Your task to perform on an android device: toggle location history Image 0: 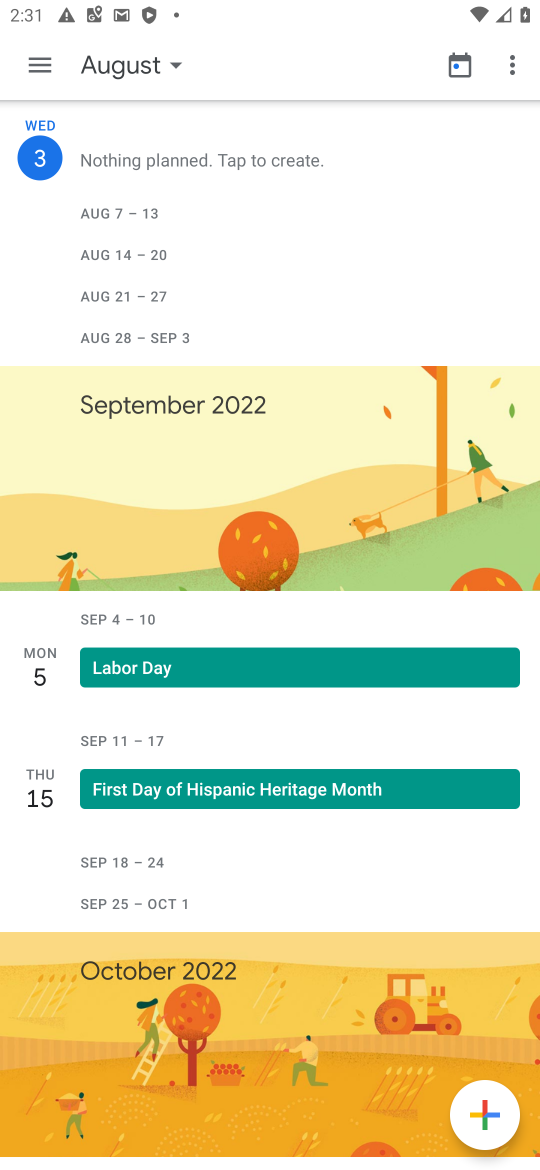
Step 0: press home button
Your task to perform on an android device: toggle location history Image 1: 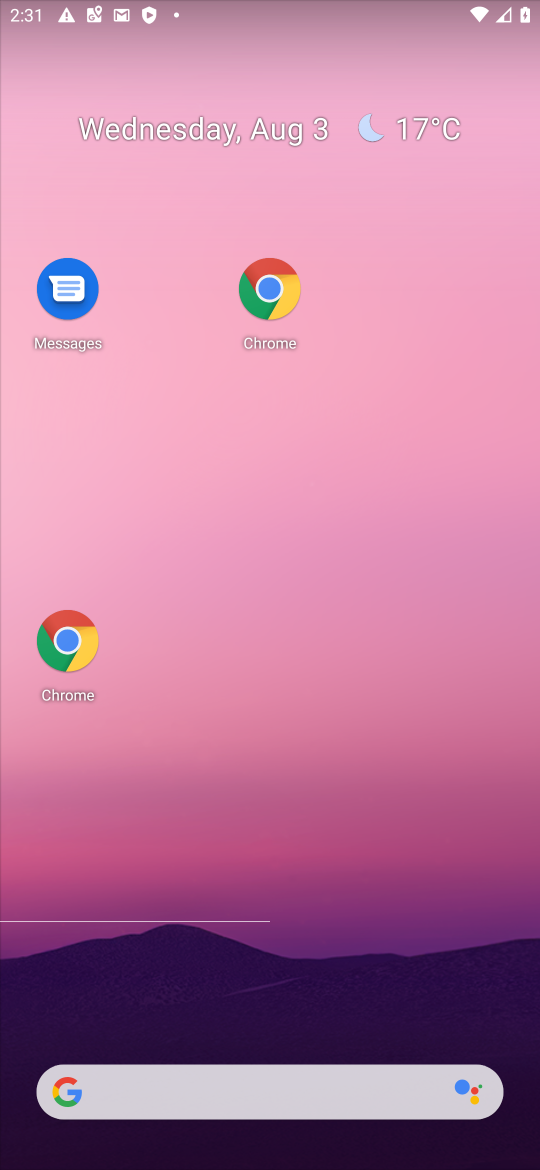
Step 1: drag from (273, 1032) to (344, 92)
Your task to perform on an android device: toggle location history Image 2: 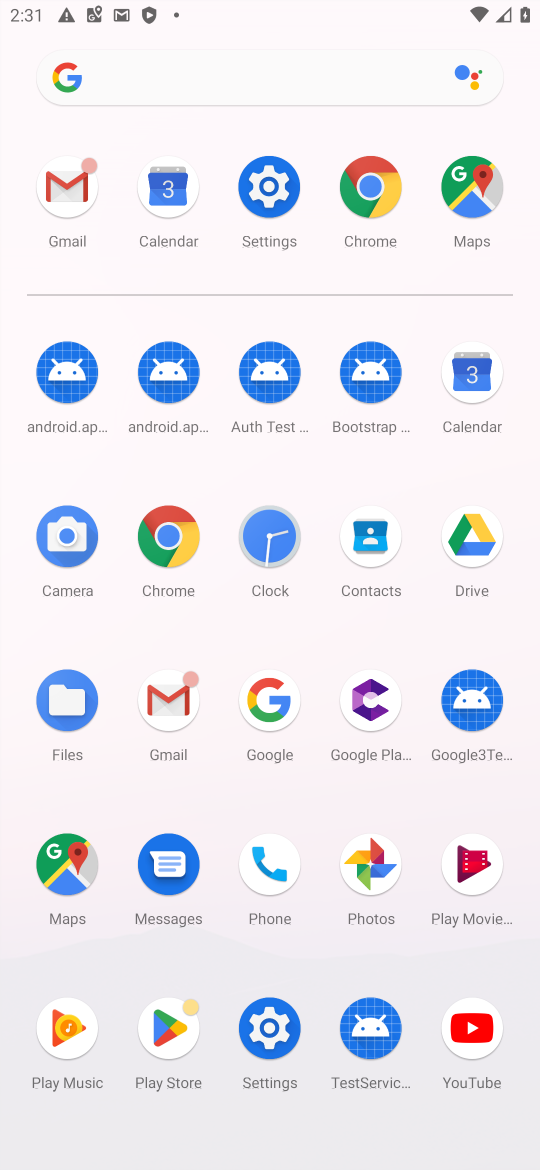
Step 2: click (248, 259)
Your task to perform on an android device: toggle location history Image 3: 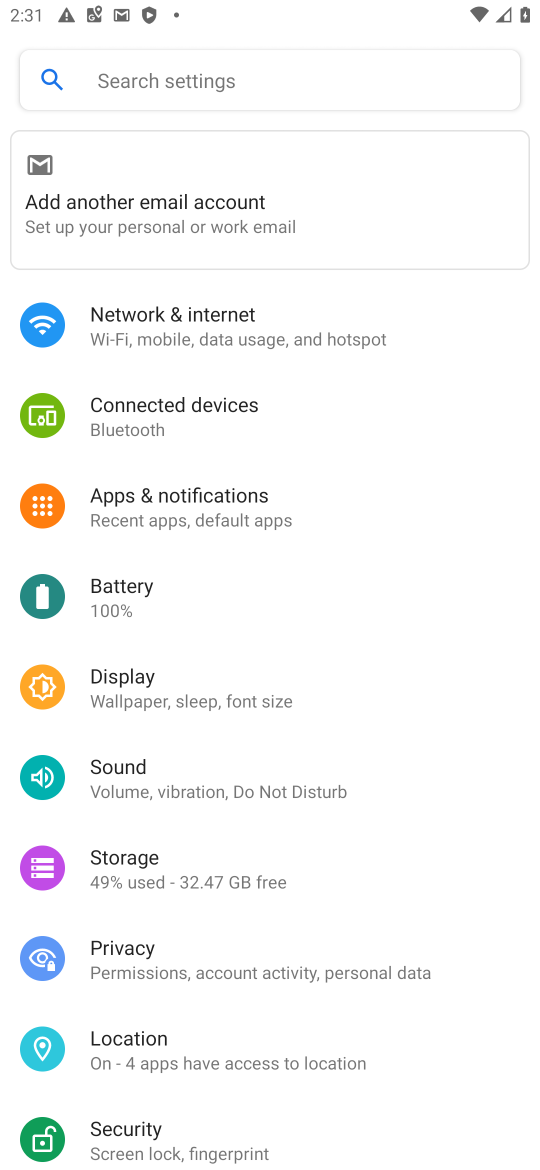
Step 3: click (255, 1038)
Your task to perform on an android device: toggle location history Image 4: 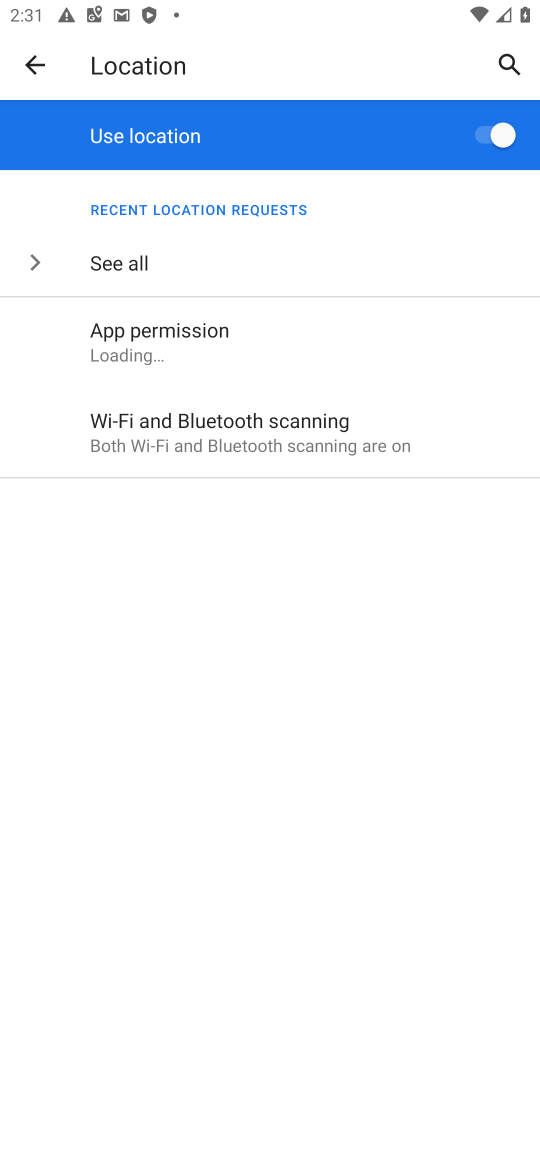
Step 4: task complete